Your task to perform on an android device: change the clock display to digital Image 0: 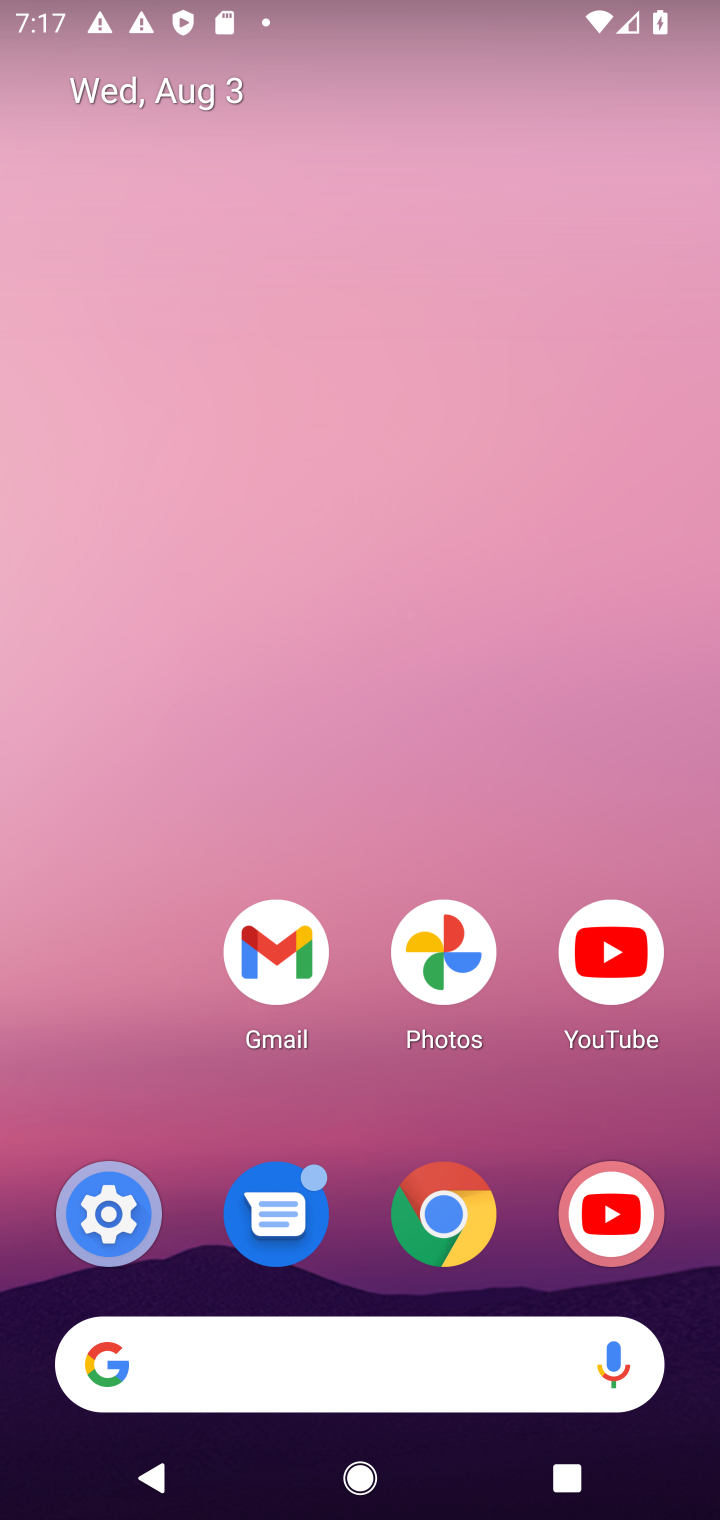
Step 0: drag from (313, 980) to (313, 262)
Your task to perform on an android device: change the clock display to digital Image 1: 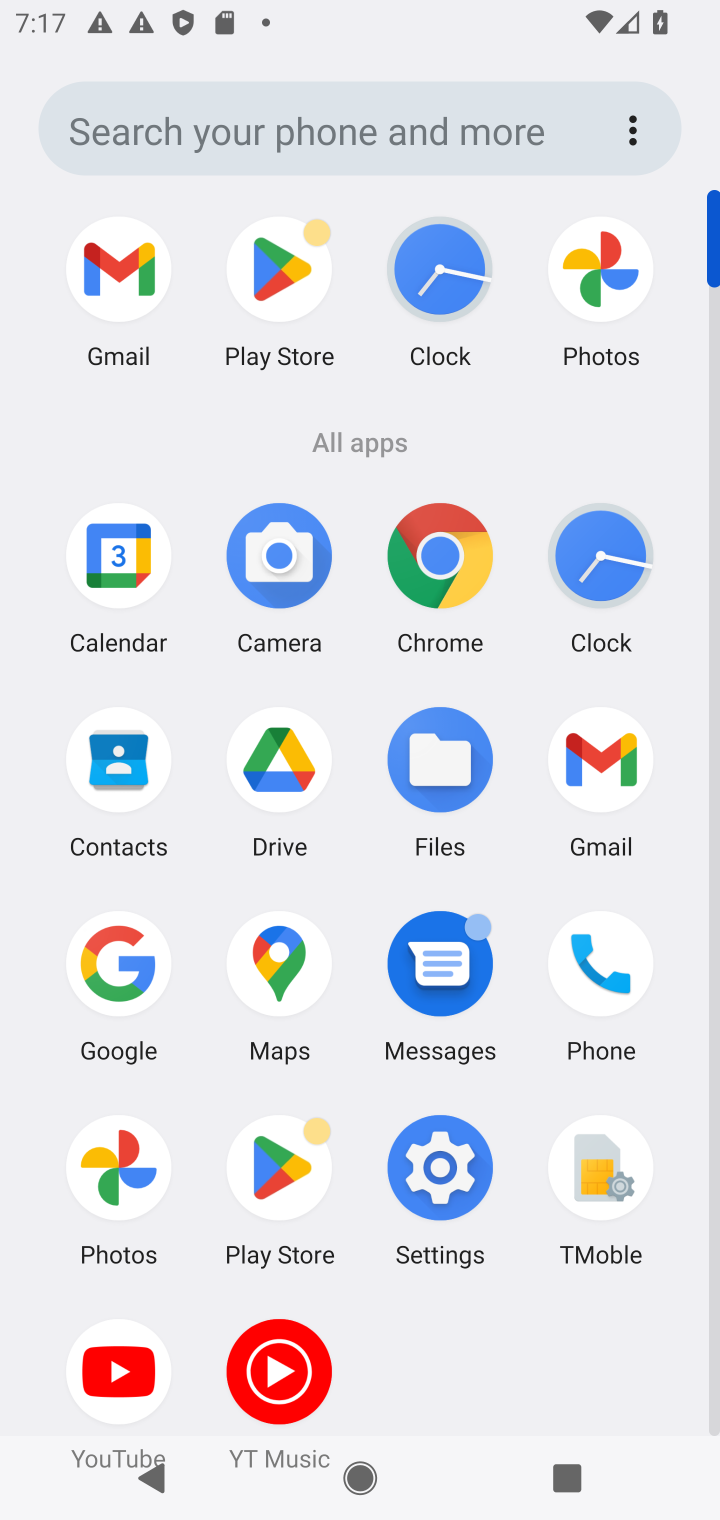
Step 1: click (577, 568)
Your task to perform on an android device: change the clock display to digital Image 2: 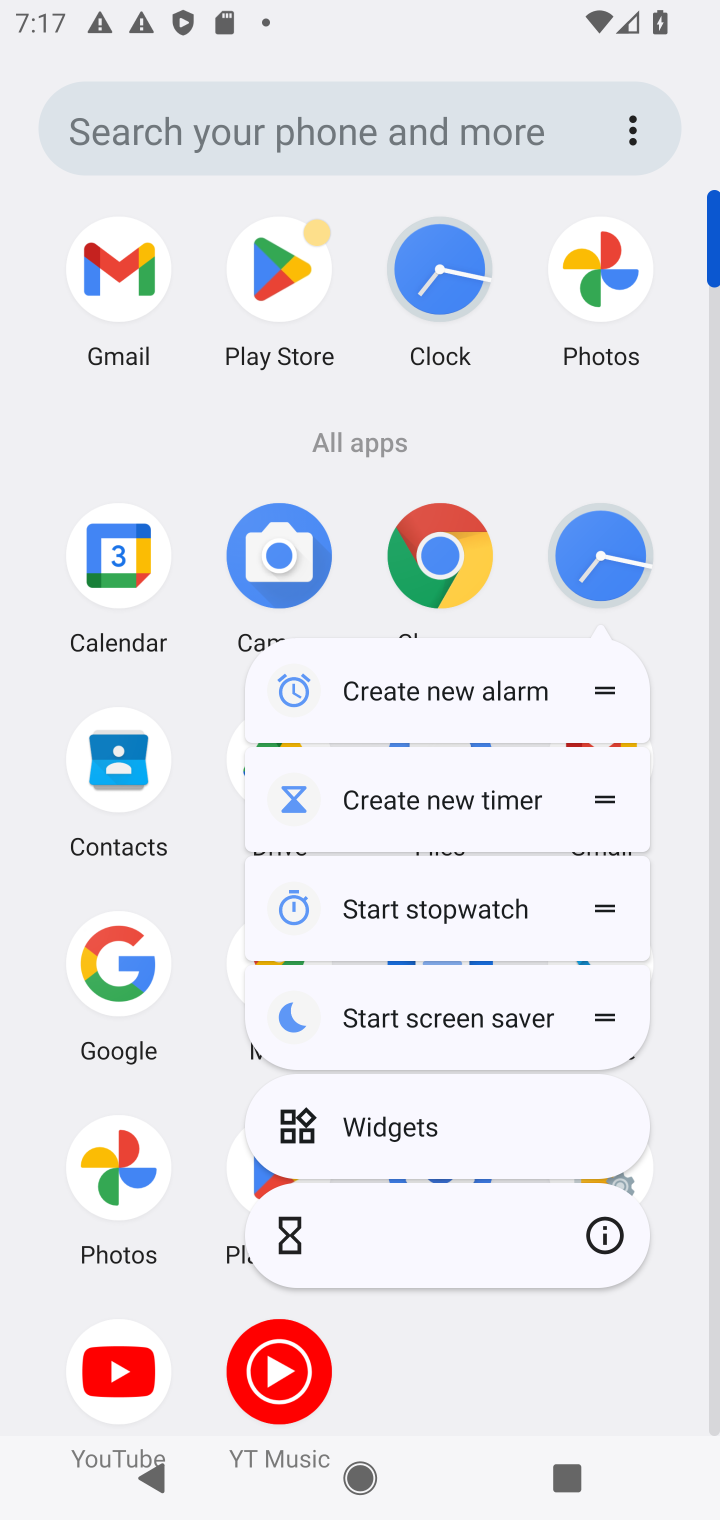
Step 2: click (600, 556)
Your task to perform on an android device: change the clock display to digital Image 3: 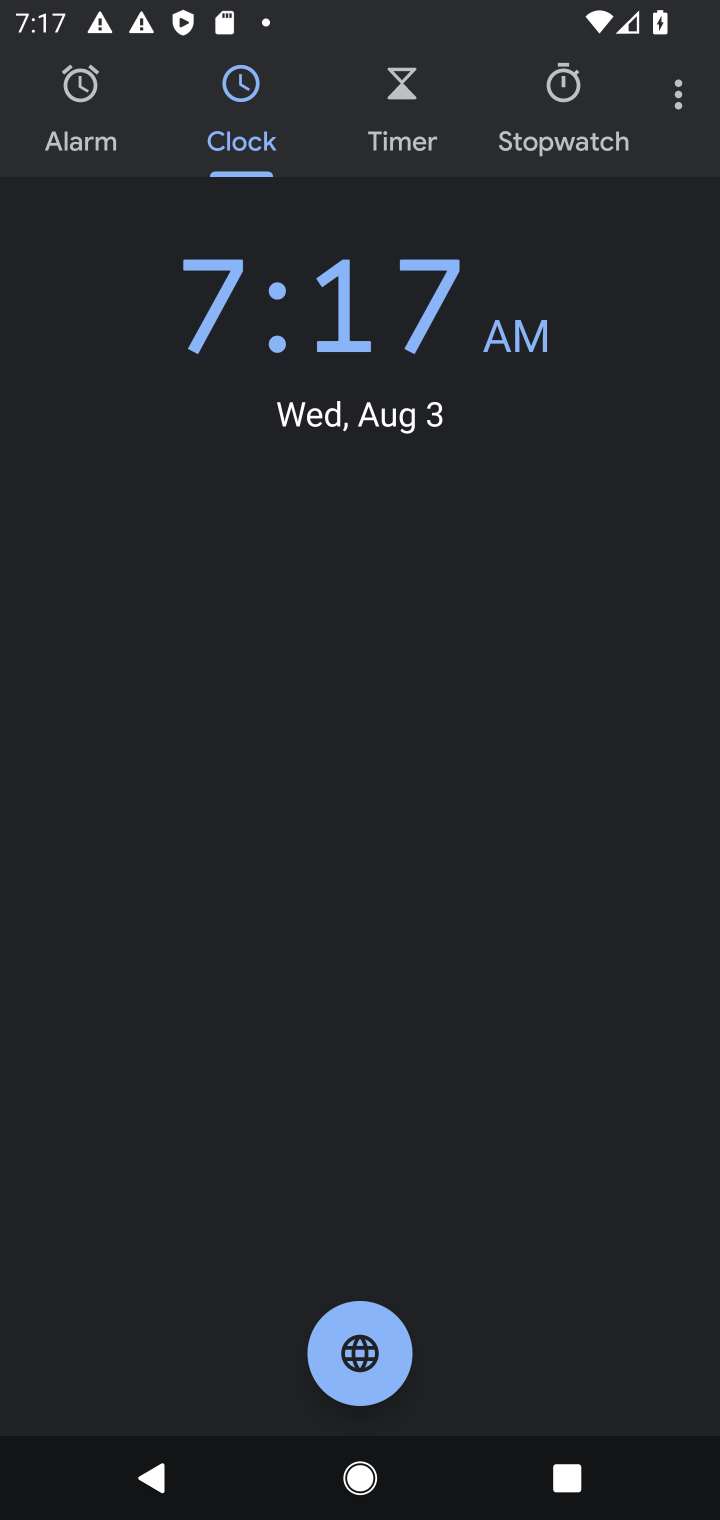
Step 3: click (683, 103)
Your task to perform on an android device: change the clock display to digital Image 4: 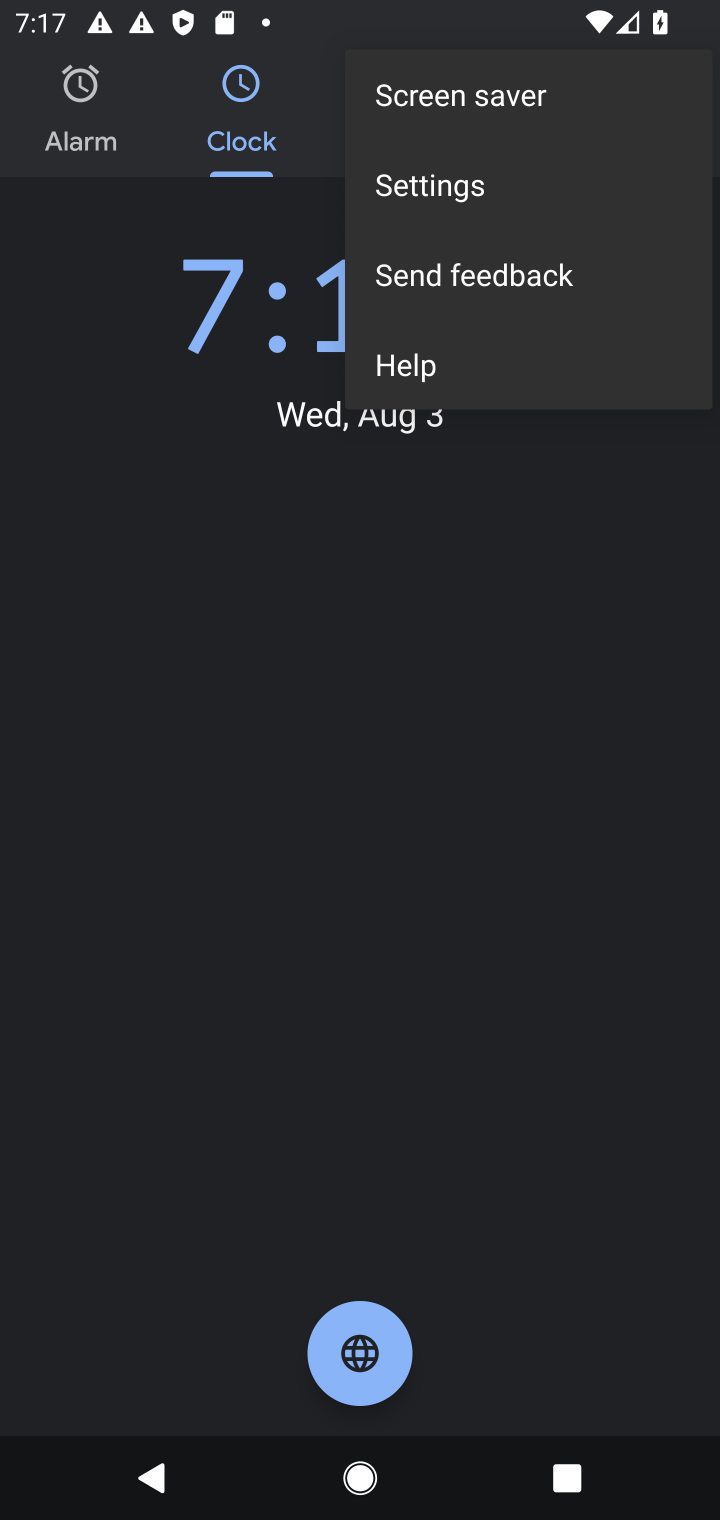
Step 4: click (450, 189)
Your task to perform on an android device: change the clock display to digital Image 5: 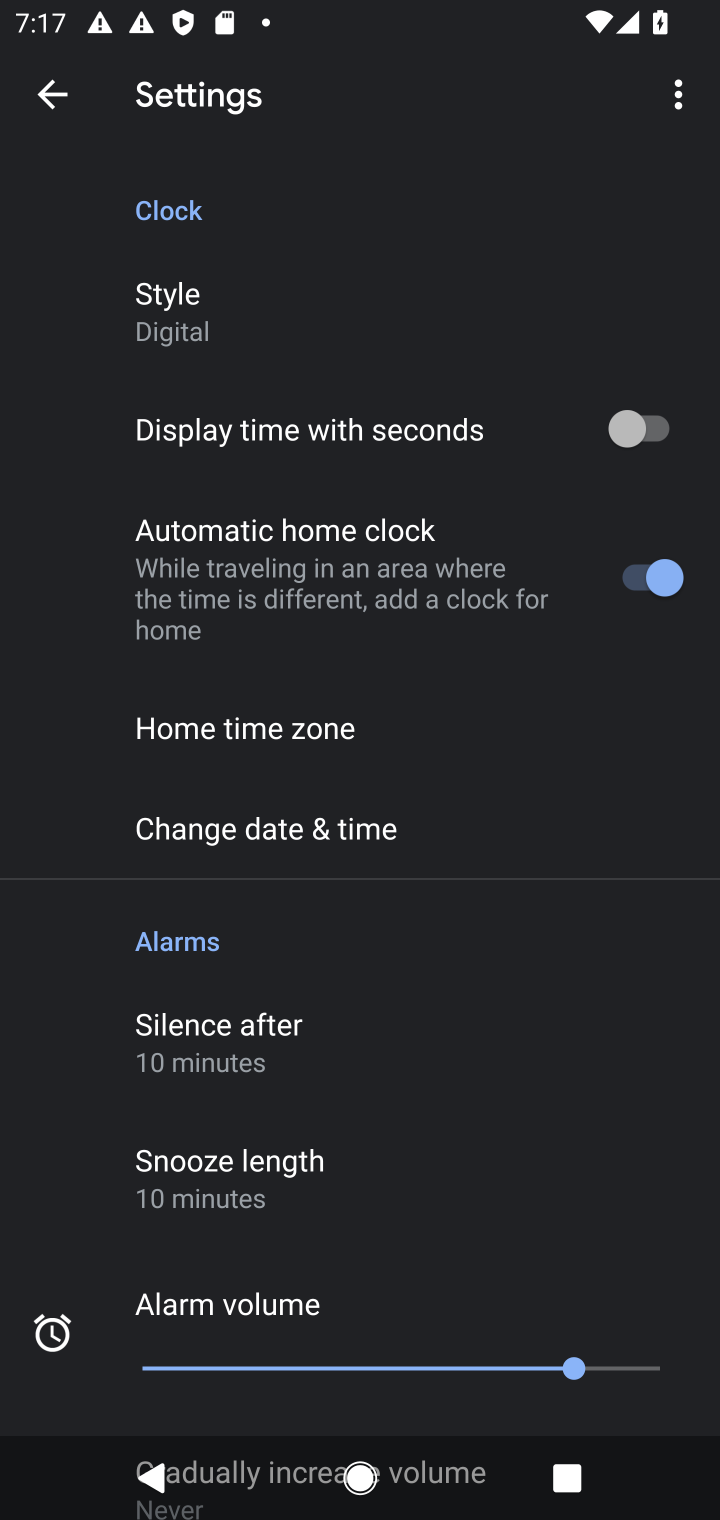
Step 5: click (206, 320)
Your task to perform on an android device: change the clock display to digital Image 6: 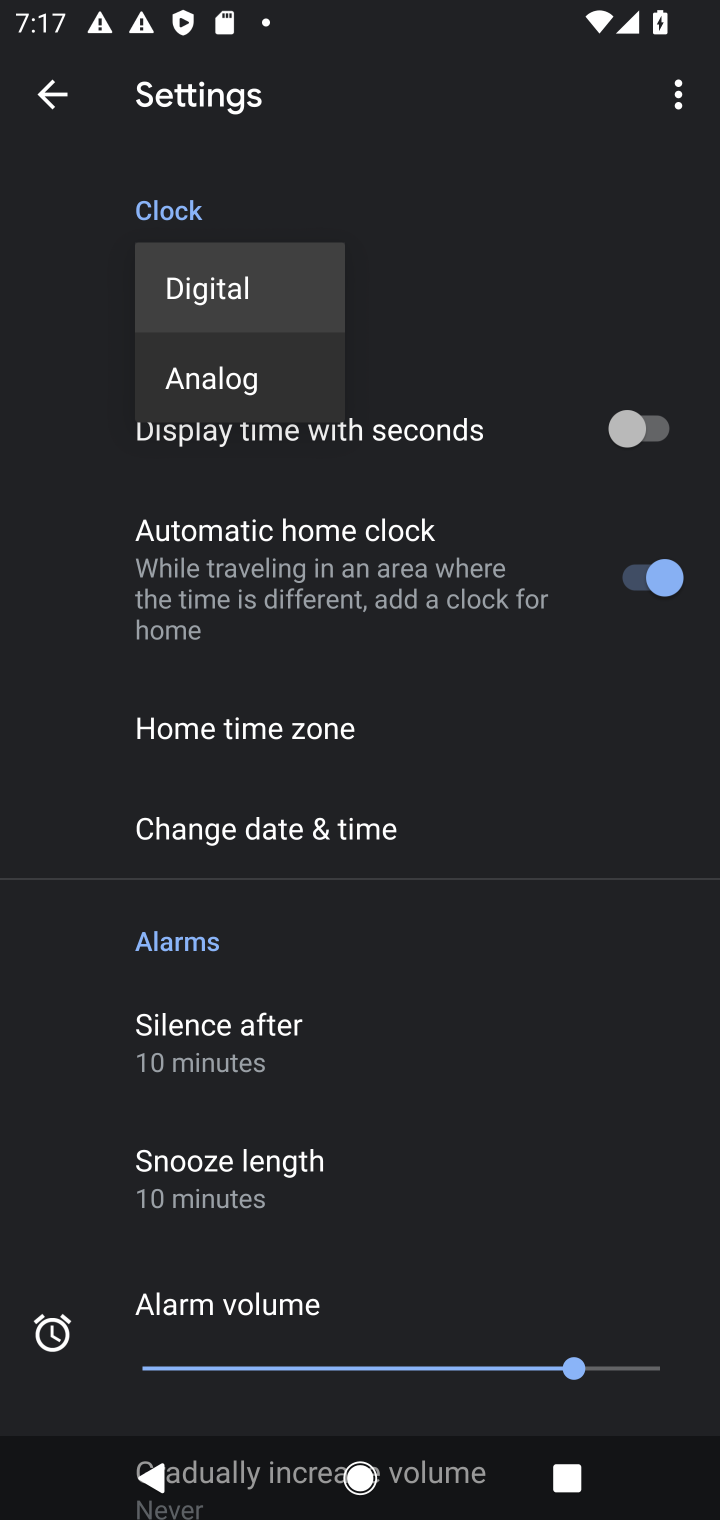
Step 6: click (209, 380)
Your task to perform on an android device: change the clock display to digital Image 7: 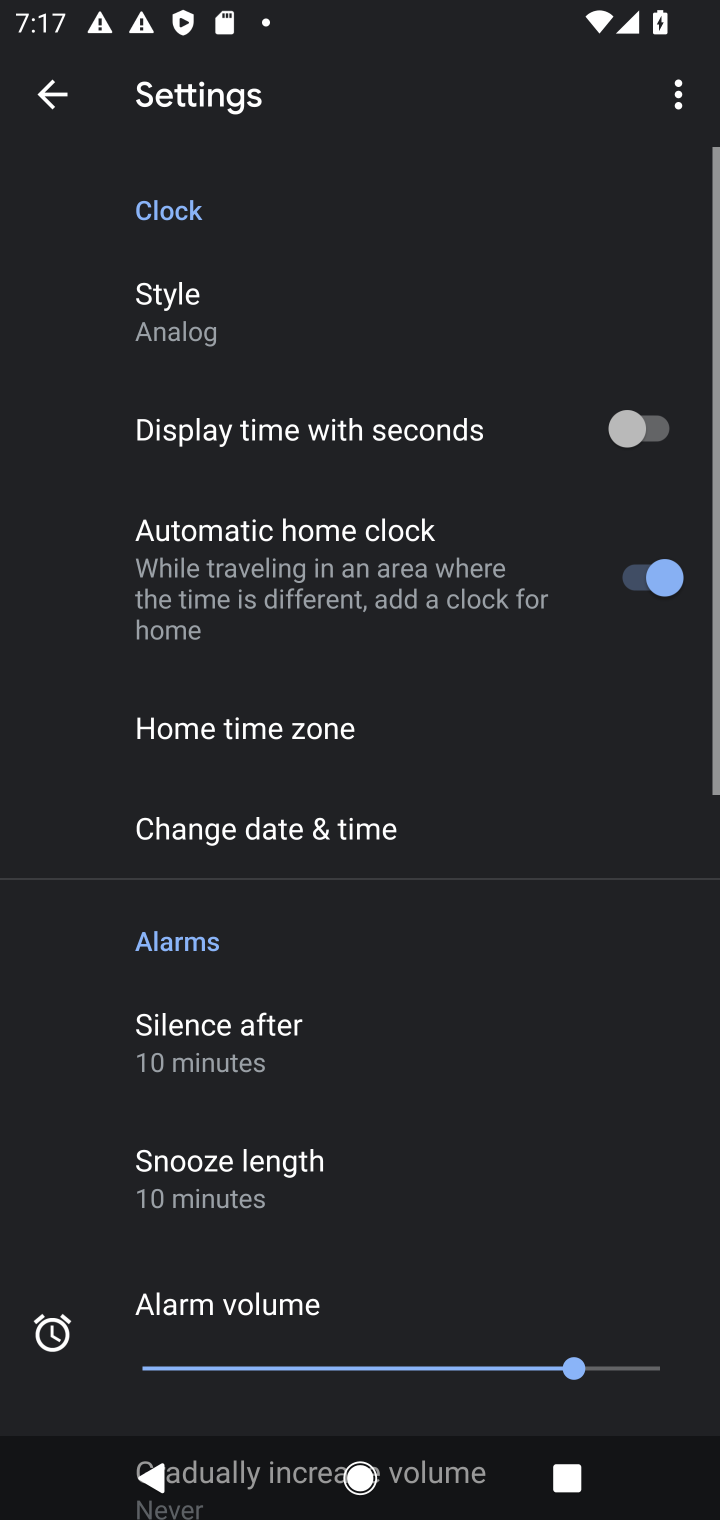
Step 7: click (197, 321)
Your task to perform on an android device: change the clock display to digital Image 8: 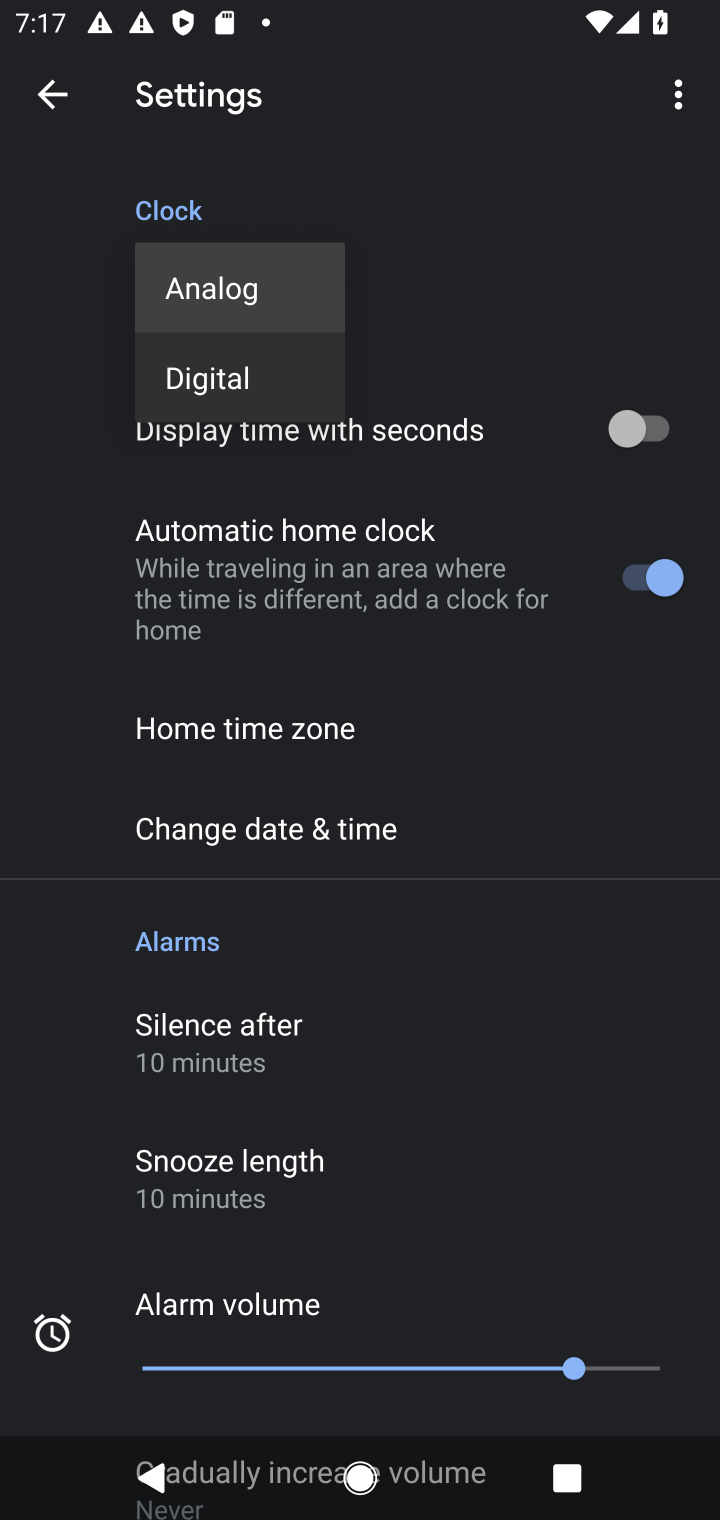
Step 8: click (199, 301)
Your task to perform on an android device: change the clock display to digital Image 9: 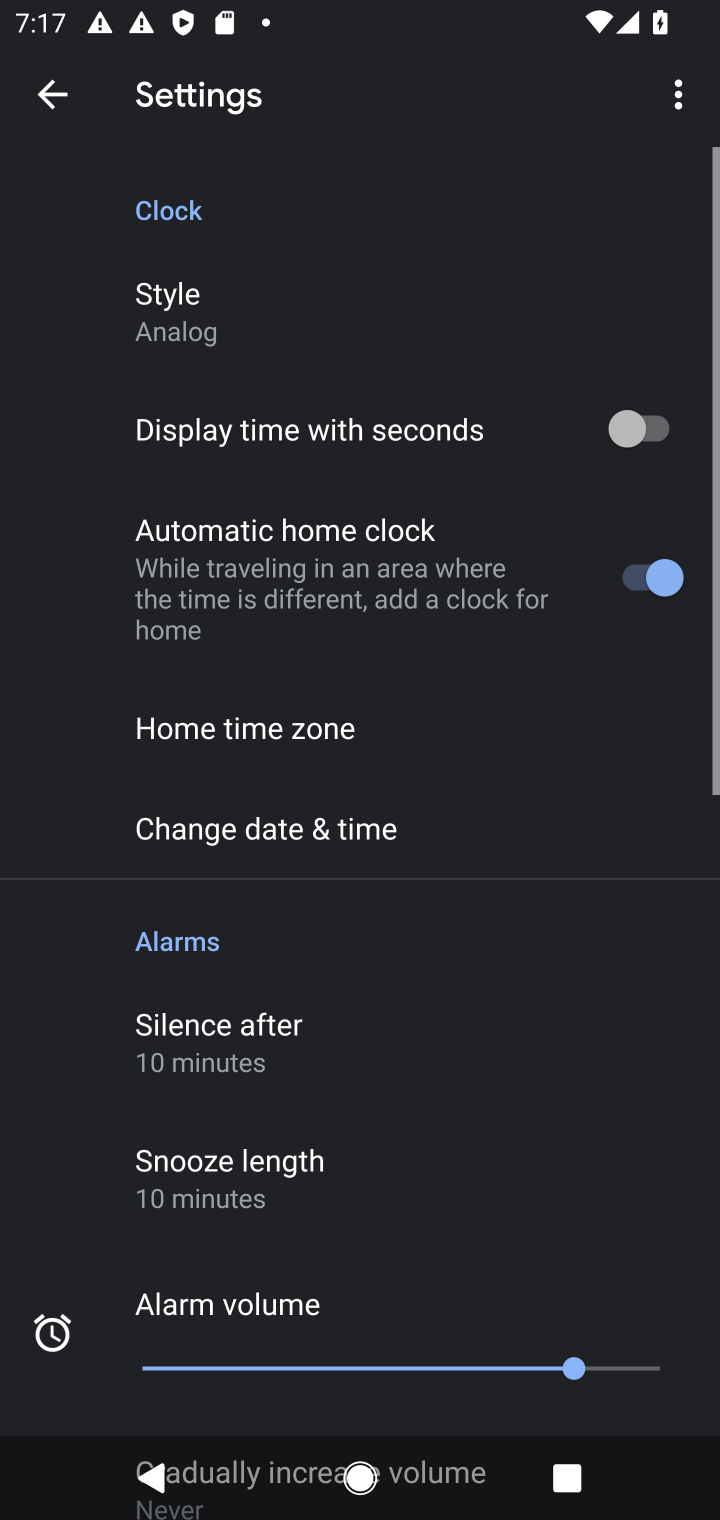
Step 9: click (209, 317)
Your task to perform on an android device: change the clock display to digital Image 10: 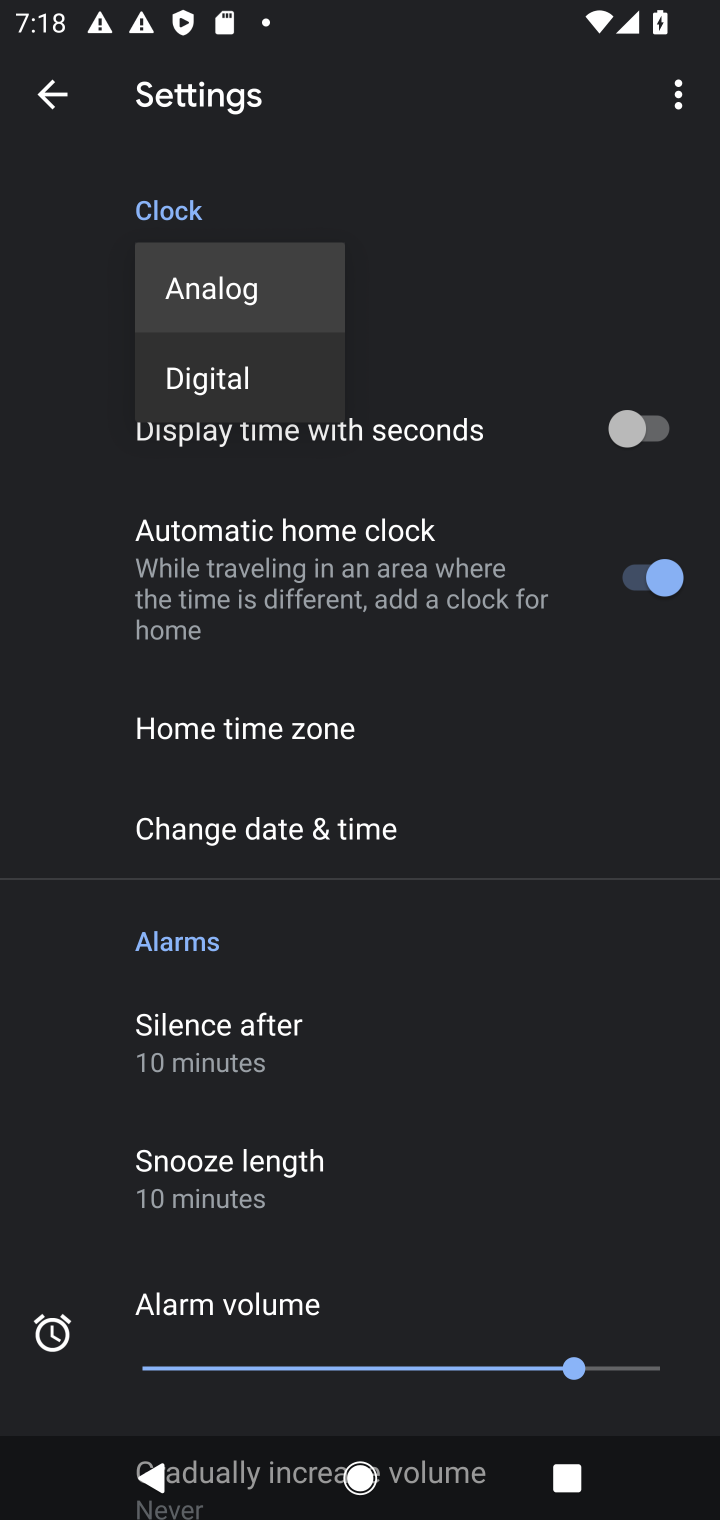
Step 10: click (226, 355)
Your task to perform on an android device: change the clock display to digital Image 11: 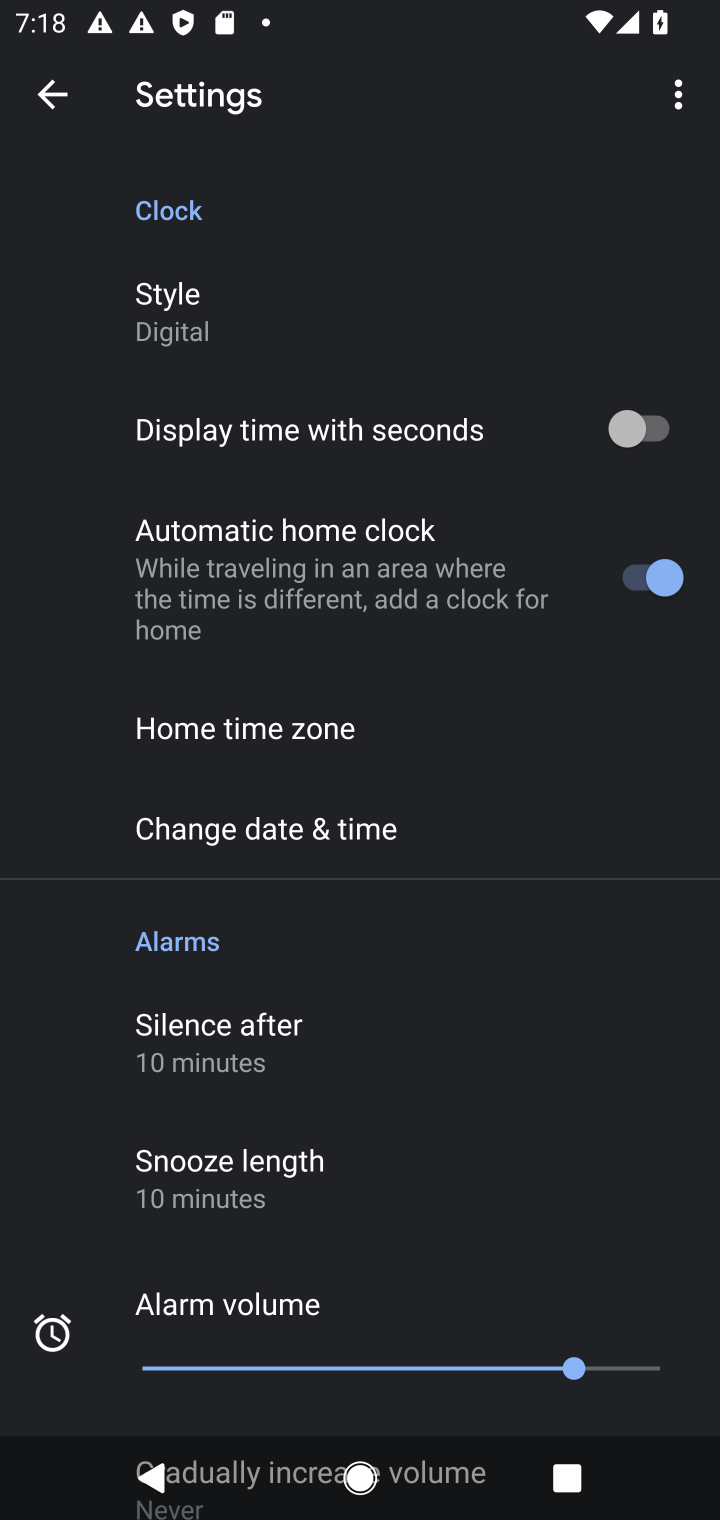
Step 11: task complete